Your task to perform on an android device: turn on wifi Image 0: 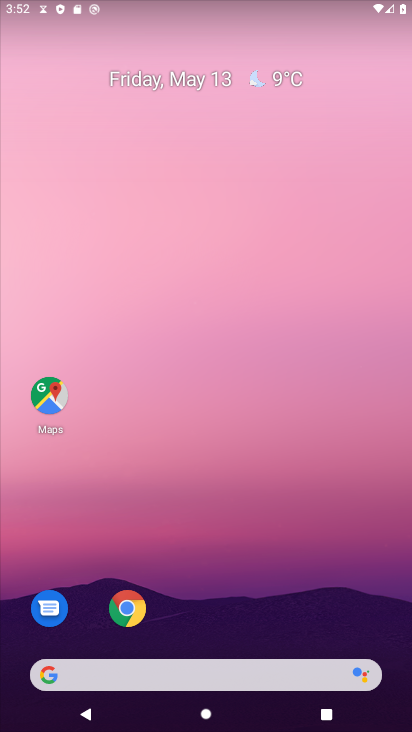
Step 0: drag from (214, 657) to (200, 352)
Your task to perform on an android device: turn on wifi Image 1: 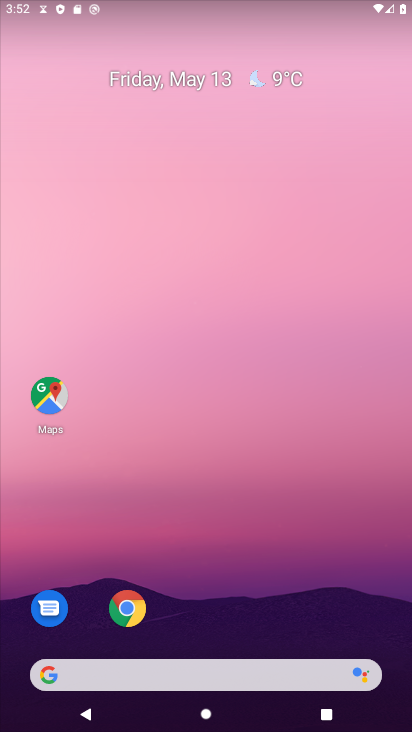
Step 1: drag from (244, 534) to (280, 63)
Your task to perform on an android device: turn on wifi Image 2: 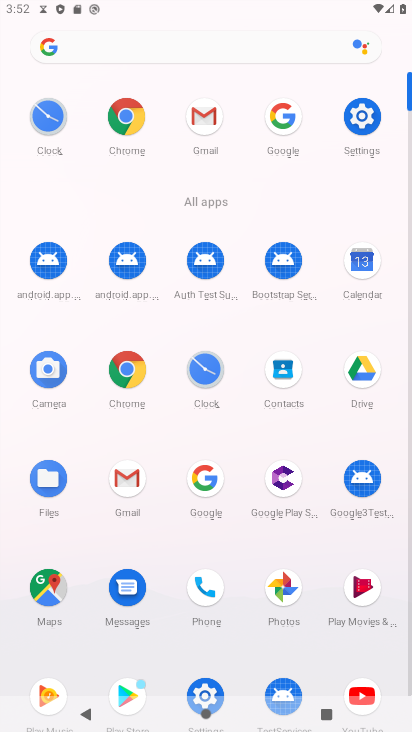
Step 2: click (366, 117)
Your task to perform on an android device: turn on wifi Image 3: 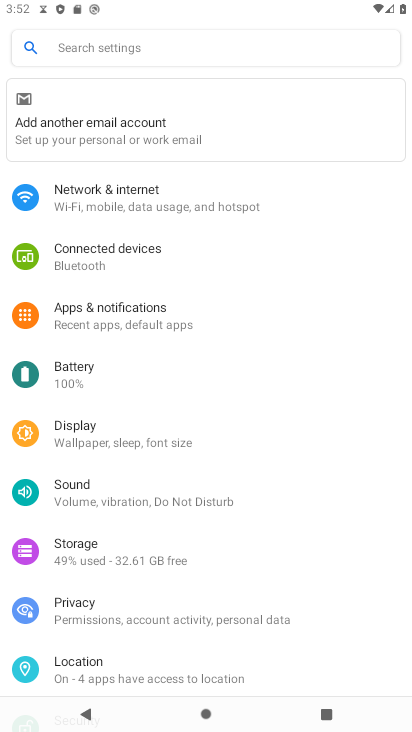
Step 3: click (145, 198)
Your task to perform on an android device: turn on wifi Image 4: 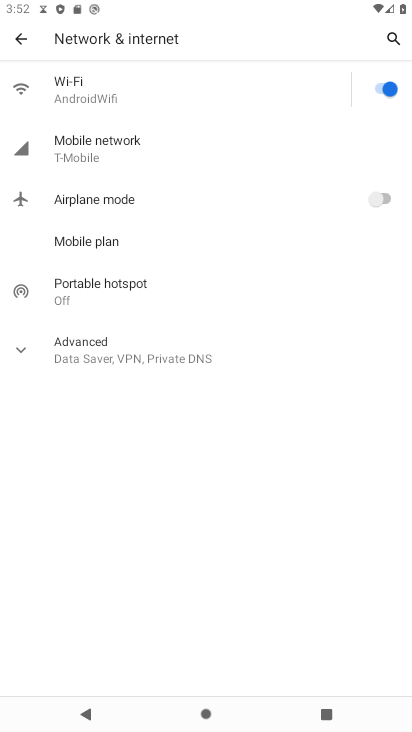
Step 4: task complete